Your task to perform on an android device: What is the recent news? Image 0: 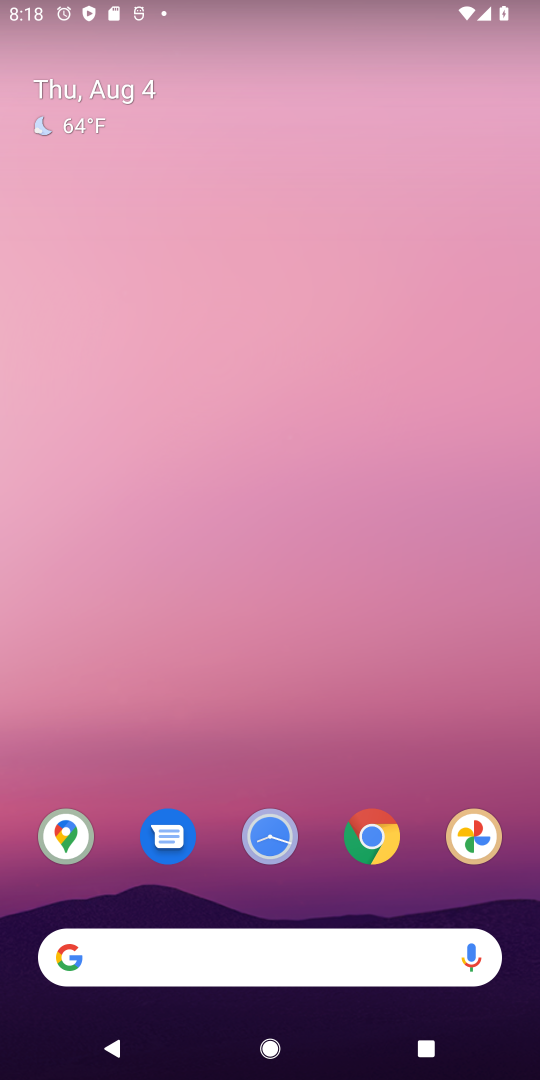
Step 0: click (176, 958)
Your task to perform on an android device: What is the recent news? Image 1: 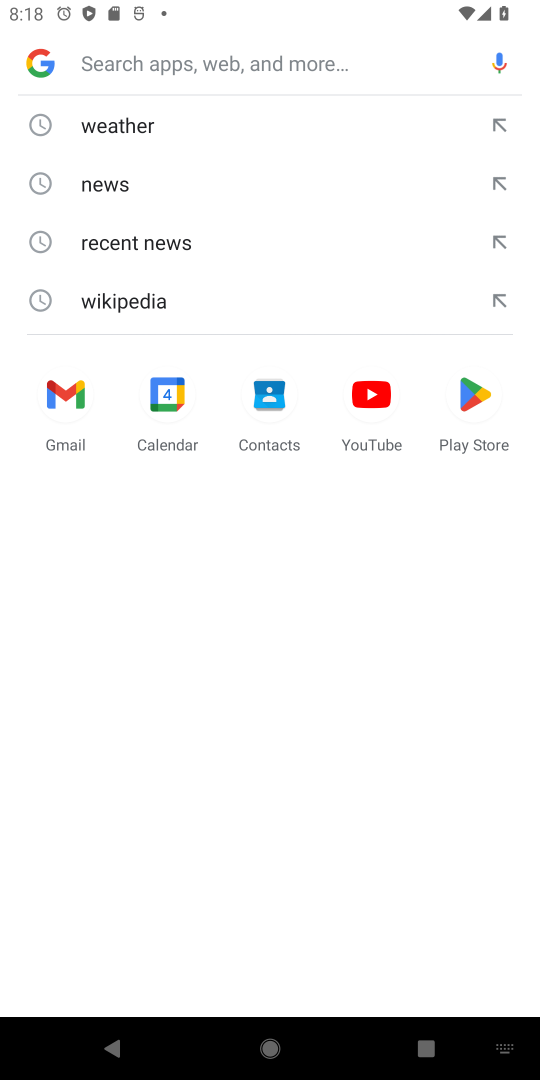
Step 1: click (125, 235)
Your task to perform on an android device: What is the recent news? Image 2: 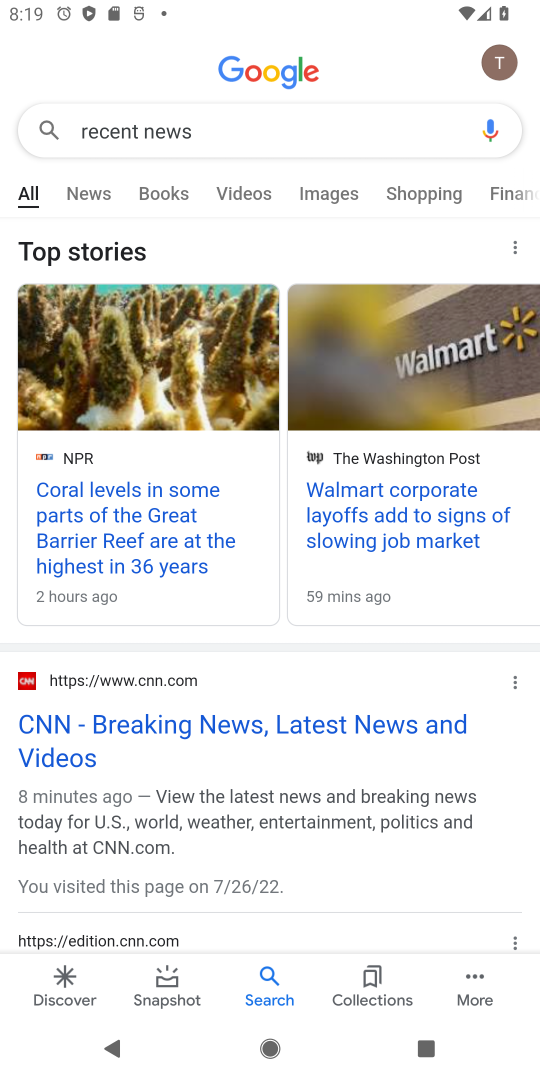
Step 2: task complete